Your task to perform on an android device: Go to Android settings Image 0: 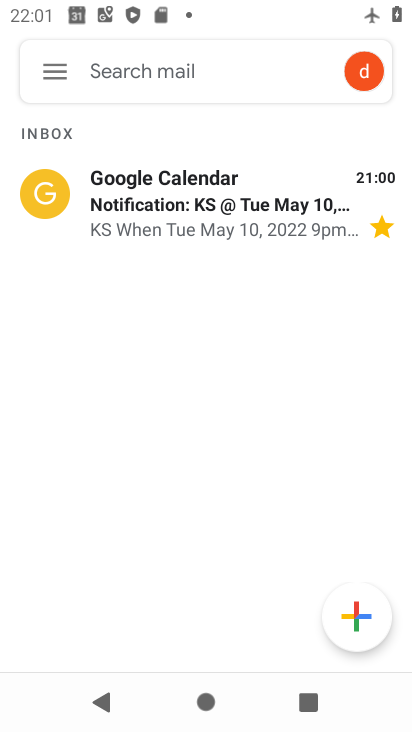
Step 0: press home button
Your task to perform on an android device: Go to Android settings Image 1: 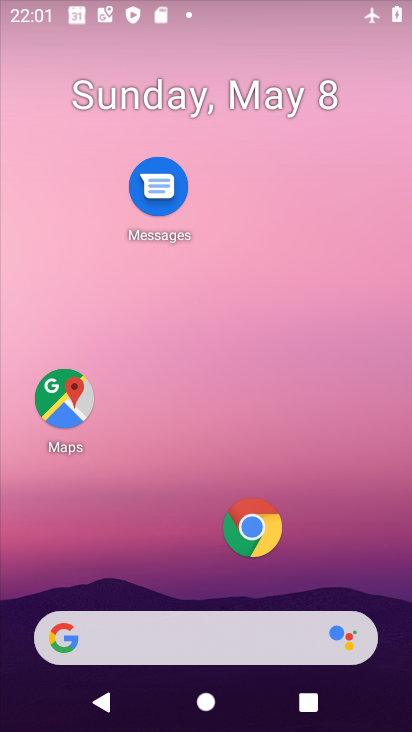
Step 1: drag from (191, 555) to (218, 22)
Your task to perform on an android device: Go to Android settings Image 2: 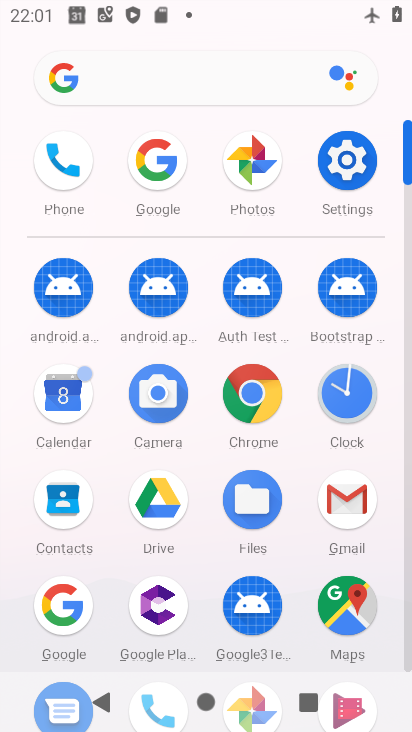
Step 2: click (336, 162)
Your task to perform on an android device: Go to Android settings Image 3: 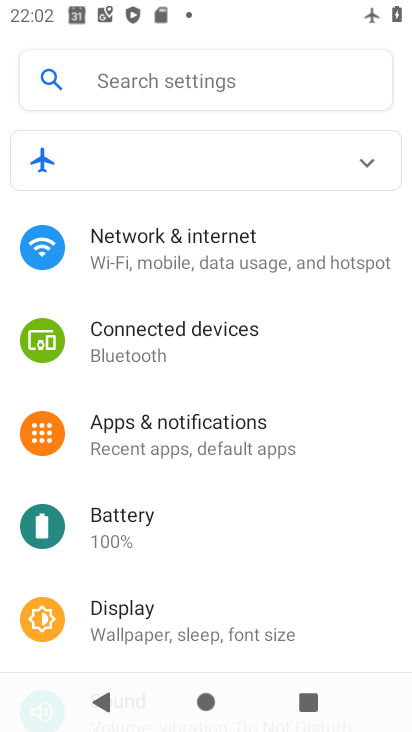
Step 3: task complete